Your task to perform on an android device: Open sound settings Image 0: 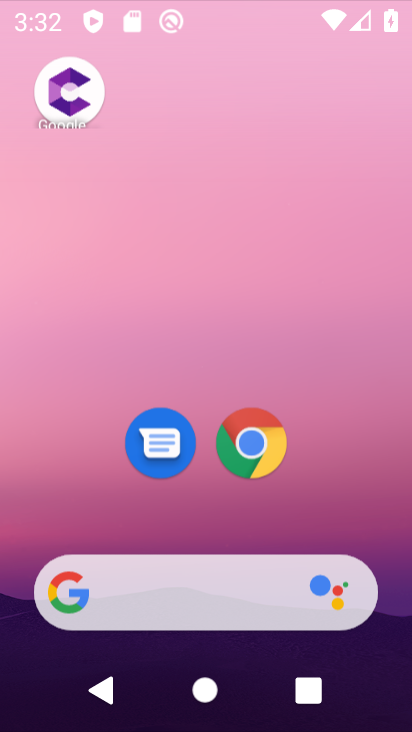
Step 0: press home button
Your task to perform on an android device: Open sound settings Image 1: 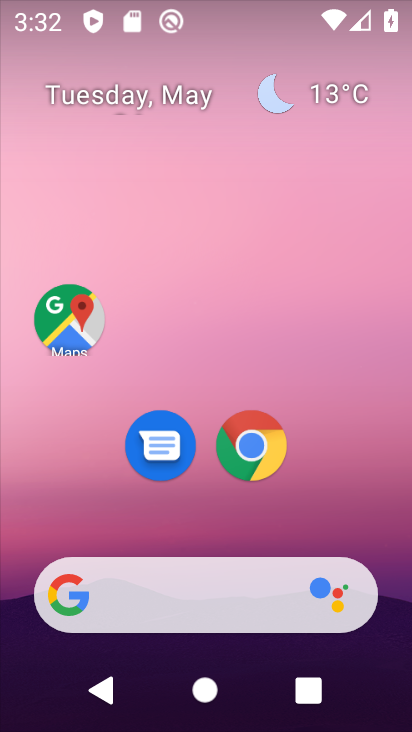
Step 1: drag from (211, 529) to (237, 97)
Your task to perform on an android device: Open sound settings Image 2: 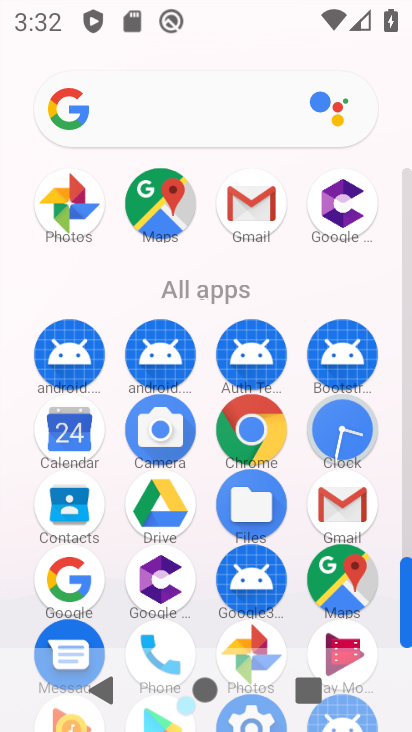
Step 2: drag from (202, 606) to (202, 200)
Your task to perform on an android device: Open sound settings Image 3: 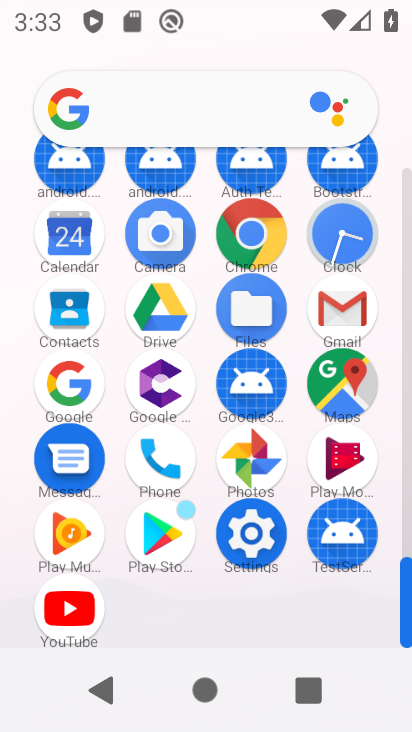
Step 3: click (247, 527)
Your task to perform on an android device: Open sound settings Image 4: 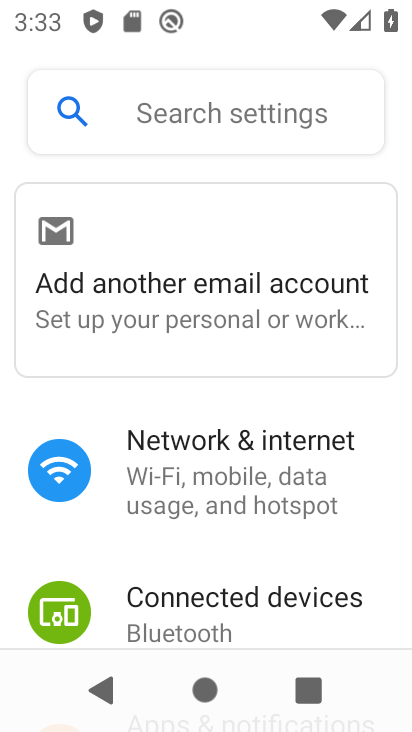
Step 4: drag from (268, 619) to (270, 162)
Your task to perform on an android device: Open sound settings Image 5: 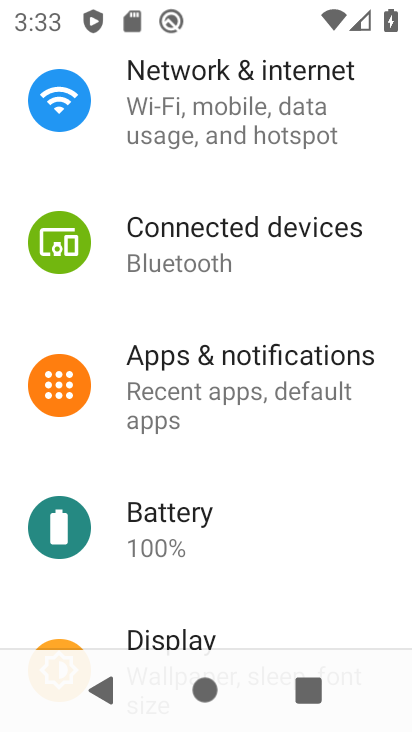
Step 5: drag from (218, 600) to (242, 126)
Your task to perform on an android device: Open sound settings Image 6: 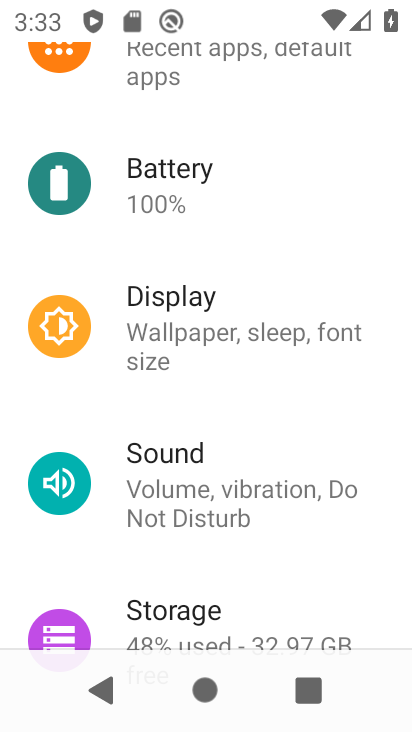
Step 6: click (222, 459)
Your task to perform on an android device: Open sound settings Image 7: 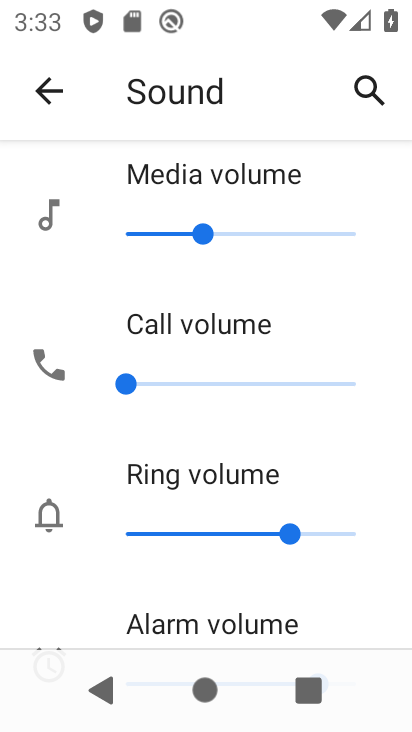
Step 7: drag from (224, 626) to (271, 183)
Your task to perform on an android device: Open sound settings Image 8: 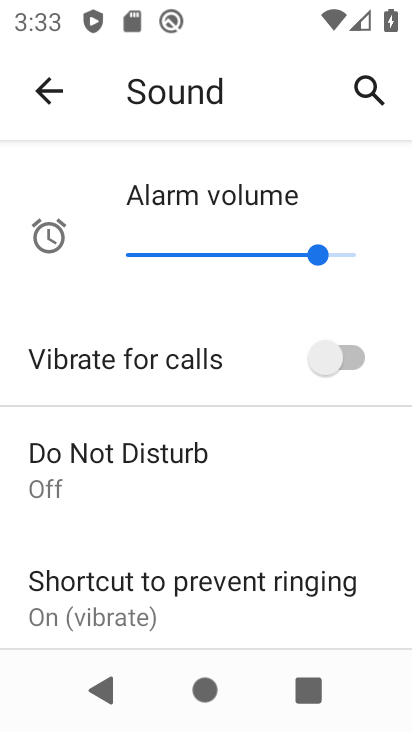
Step 8: drag from (195, 557) to (236, 173)
Your task to perform on an android device: Open sound settings Image 9: 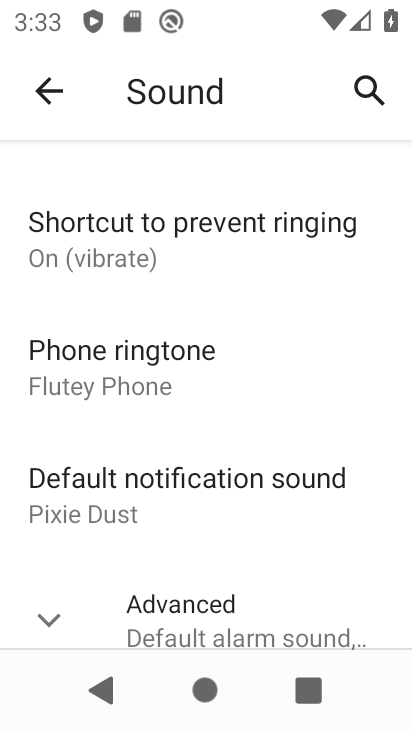
Step 9: click (49, 609)
Your task to perform on an android device: Open sound settings Image 10: 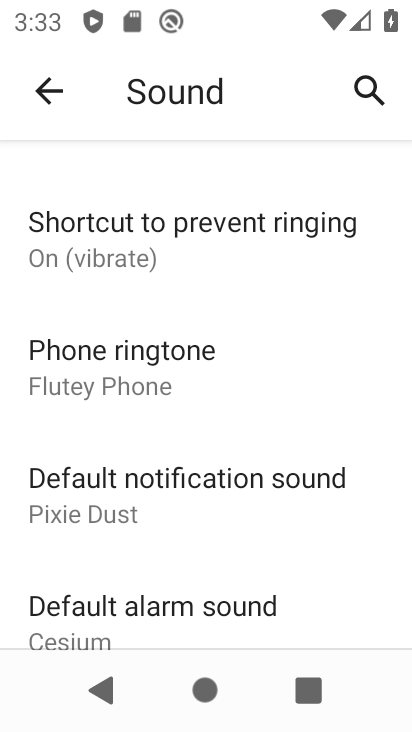
Step 10: task complete